Your task to perform on an android device: Search for pizza restaurants on Maps Image 0: 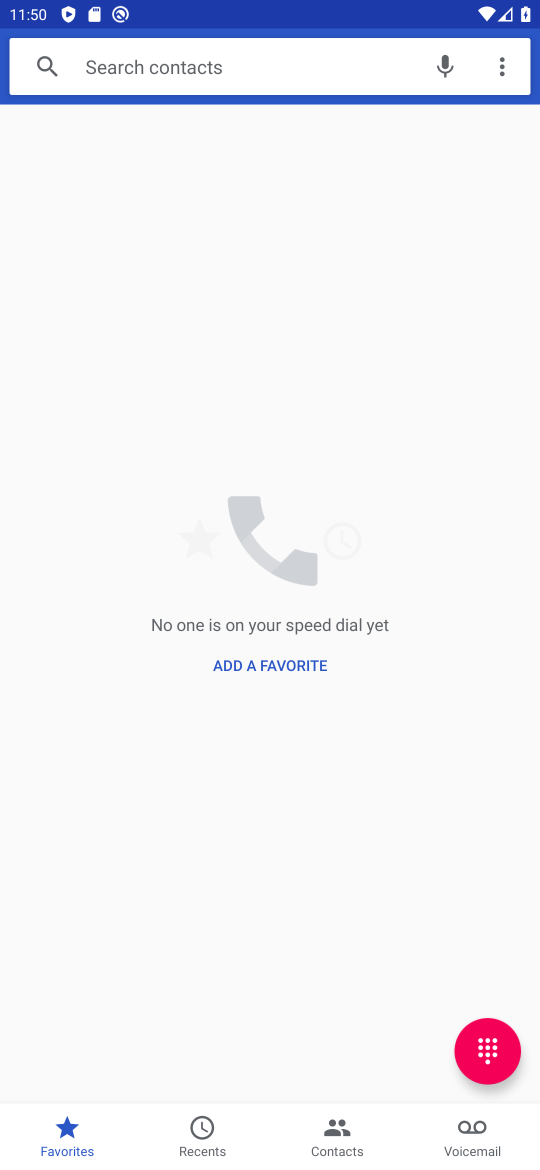
Step 0: press home button
Your task to perform on an android device: Search for pizza restaurants on Maps Image 1: 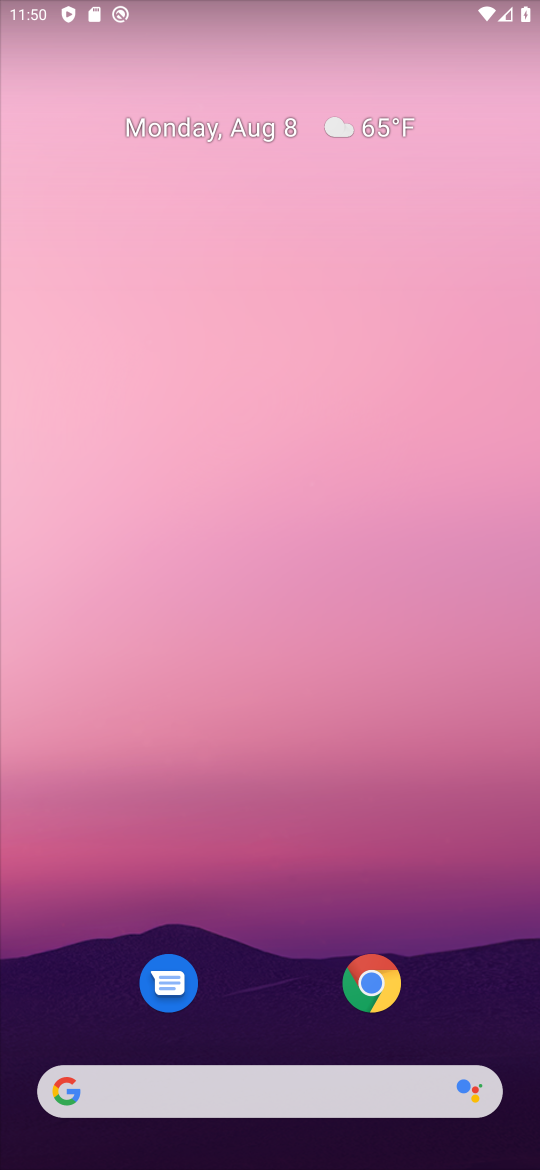
Step 1: drag from (297, 1039) to (240, 2)
Your task to perform on an android device: Search for pizza restaurants on Maps Image 2: 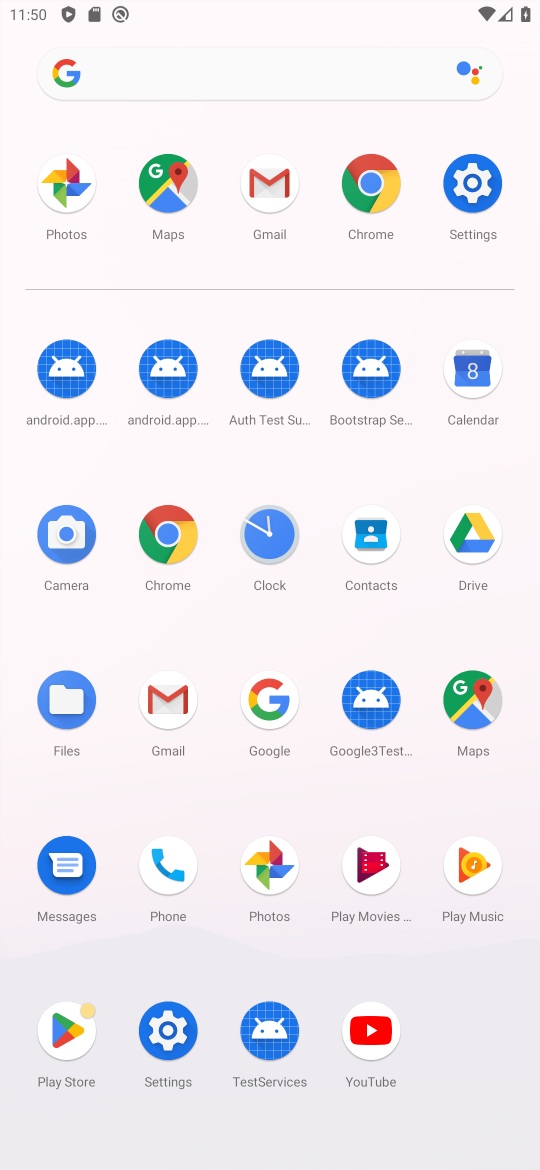
Step 2: click (193, 213)
Your task to perform on an android device: Search for pizza restaurants on Maps Image 3: 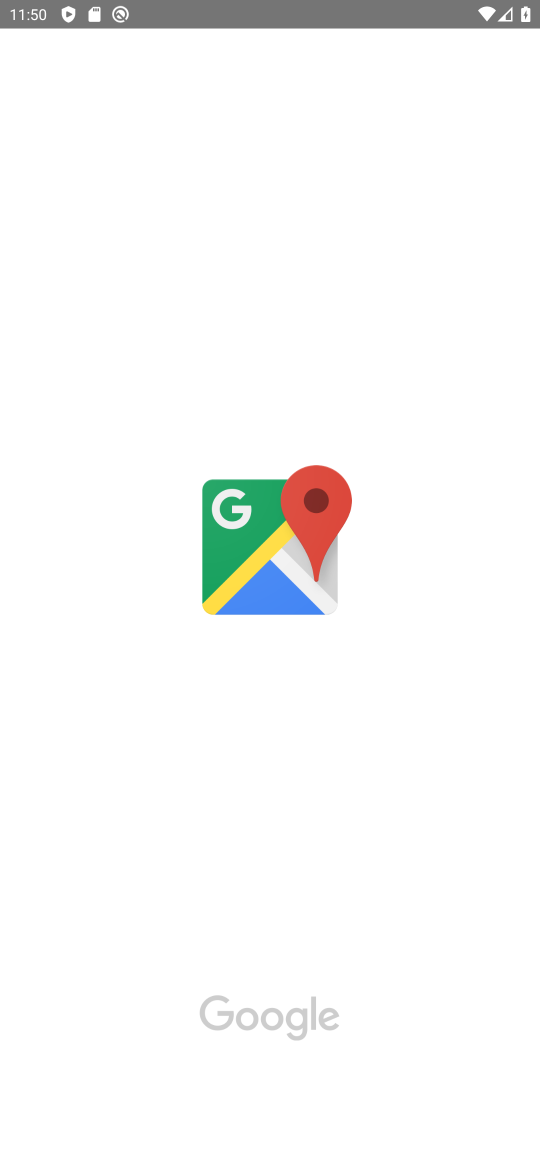
Step 3: task complete